Your task to perform on an android device: Open the web browser Image 0: 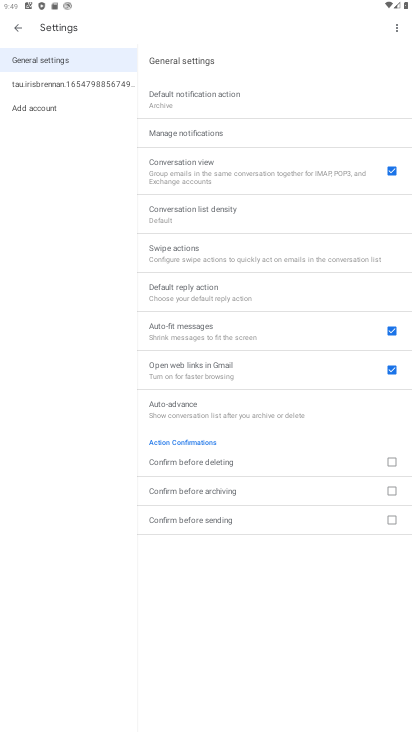
Step 0: press home button
Your task to perform on an android device: Open the web browser Image 1: 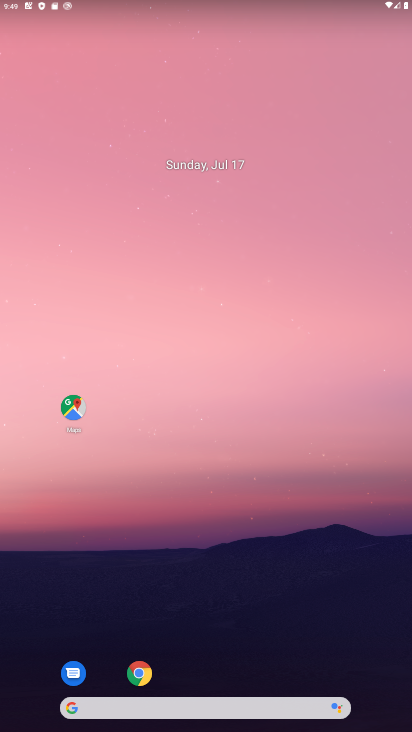
Step 1: drag from (212, 687) to (250, 155)
Your task to perform on an android device: Open the web browser Image 2: 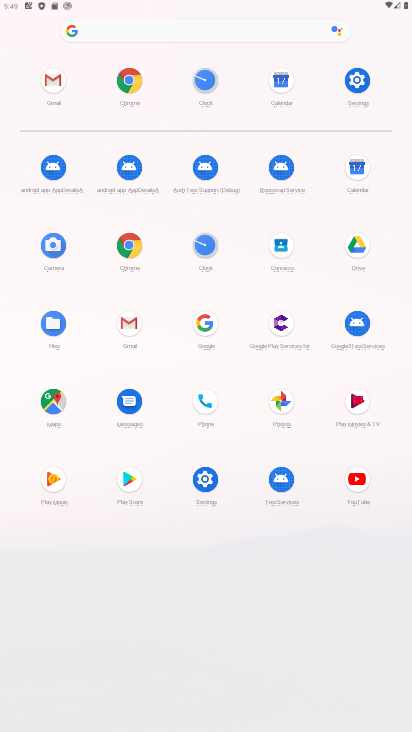
Step 2: click (199, 324)
Your task to perform on an android device: Open the web browser Image 3: 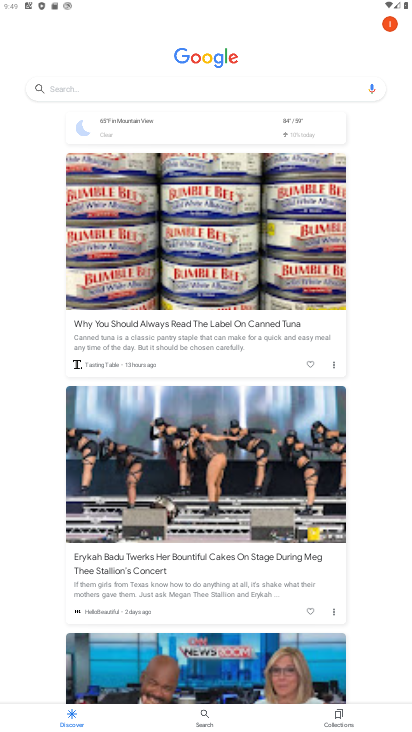
Step 3: task complete